Your task to perform on an android device: Search for seafood restaurants on Google Maps Image 0: 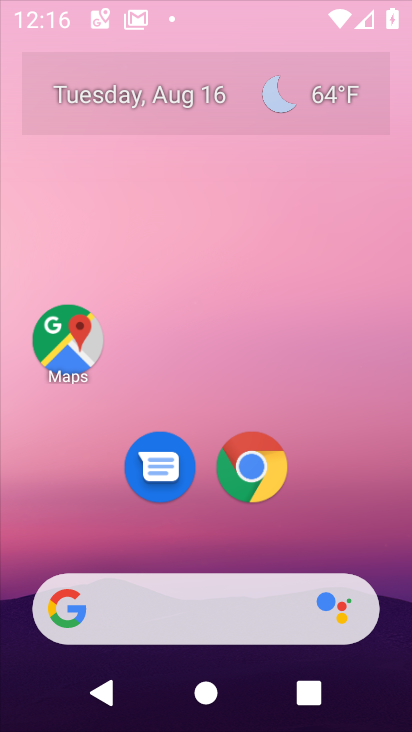
Step 0: press home button
Your task to perform on an android device: Search for seafood restaurants on Google Maps Image 1: 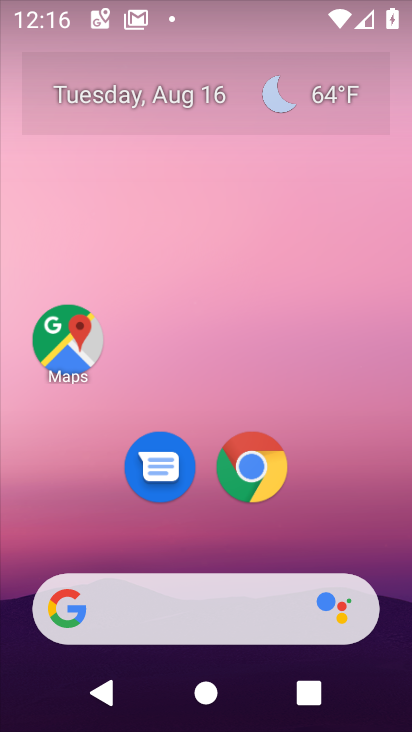
Step 1: drag from (363, 511) to (362, 195)
Your task to perform on an android device: Search for seafood restaurants on Google Maps Image 2: 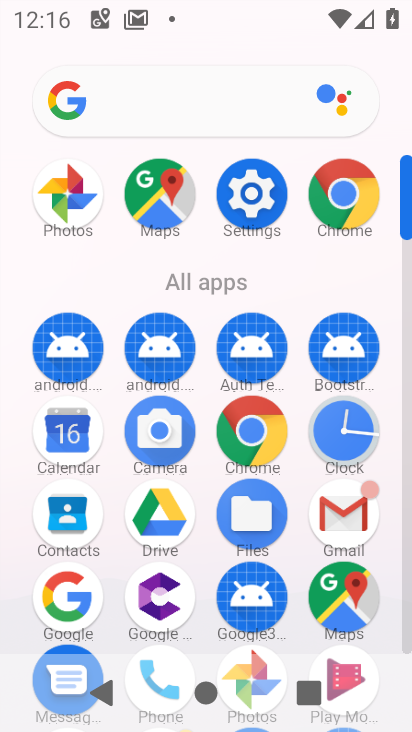
Step 2: click (347, 590)
Your task to perform on an android device: Search for seafood restaurants on Google Maps Image 3: 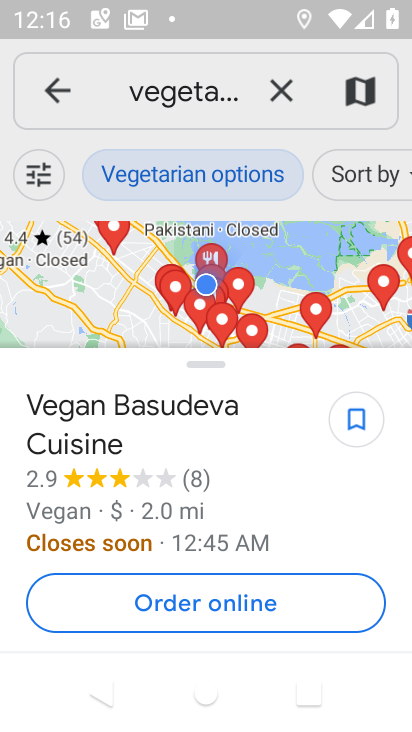
Step 3: press back button
Your task to perform on an android device: Search for seafood restaurants on Google Maps Image 4: 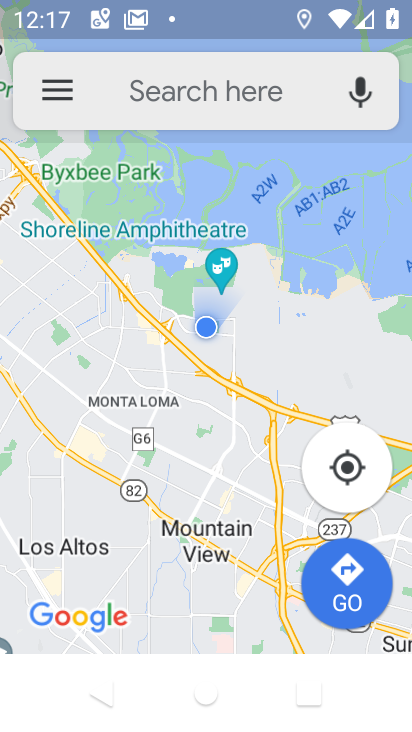
Step 4: click (202, 90)
Your task to perform on an android device: Search for seafood restaurants on Google Maps Image 5: 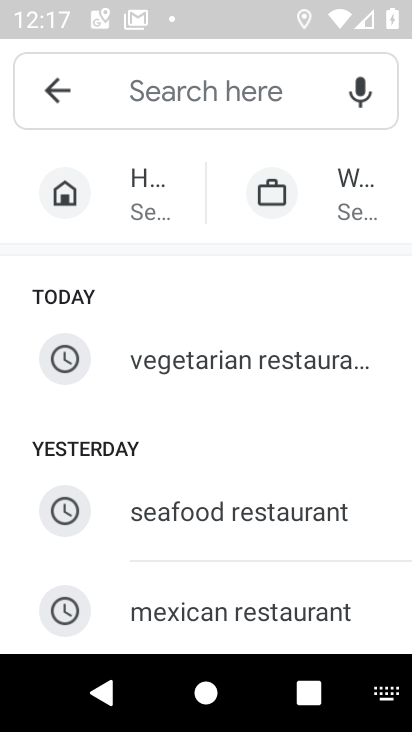
Step 5: press enter
Your task to perform on an android device: Search for seafood restaurants on Google Maps Image 6: 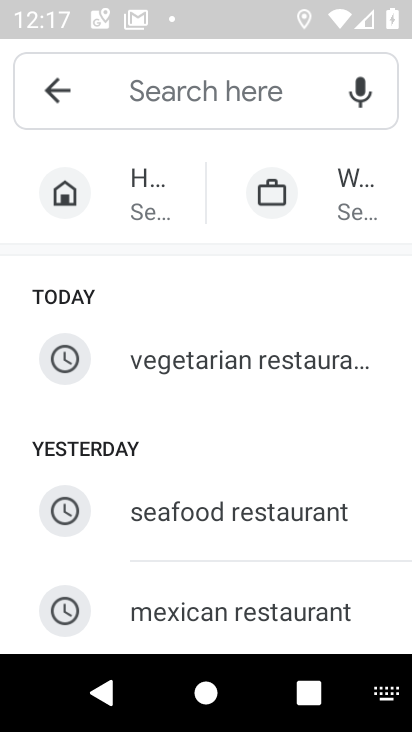
Step 6: type "seafood restaurants"
Your task to perform on an android device: Search for seafood restaurants on Google Maps Image 7: 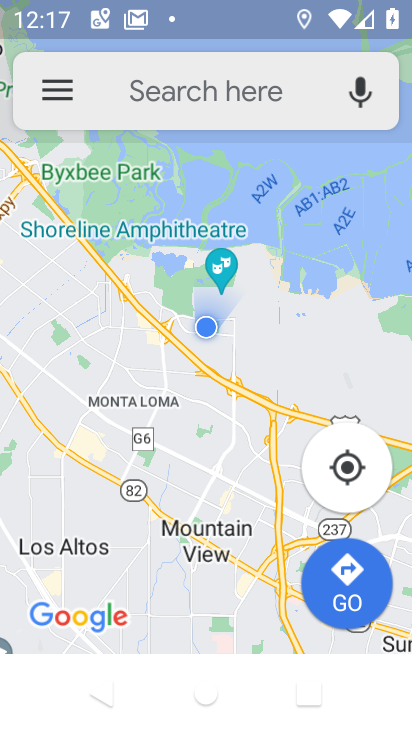
Step 7: click (99, 95)
Your task to perform on an android device: Search for seafood restaurants on Google Maps Image 8: 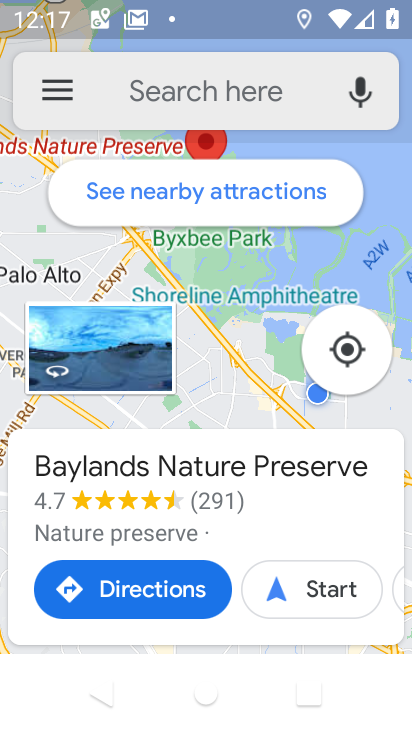
Step 8: click (139, 85)
Your task to perform on an android device: Search for seafood restaurants on Google Maps Image 9: 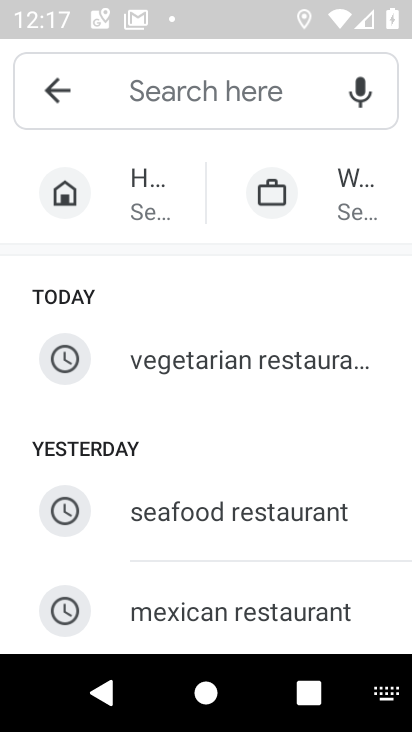
Step 9: press enter
Your task to perform on an android device: Search for seafood restaurants on Google Maps Image 10: 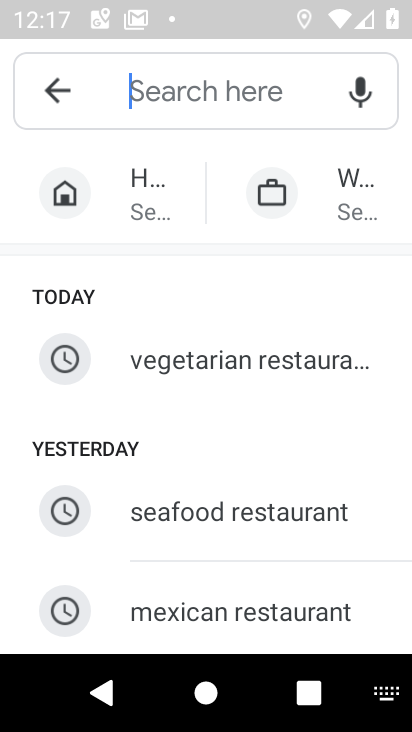
Step 10: type "seafood restaurants"
Your task to perform on an android device: Search for seafood restaurants on Google Maps Image 11: 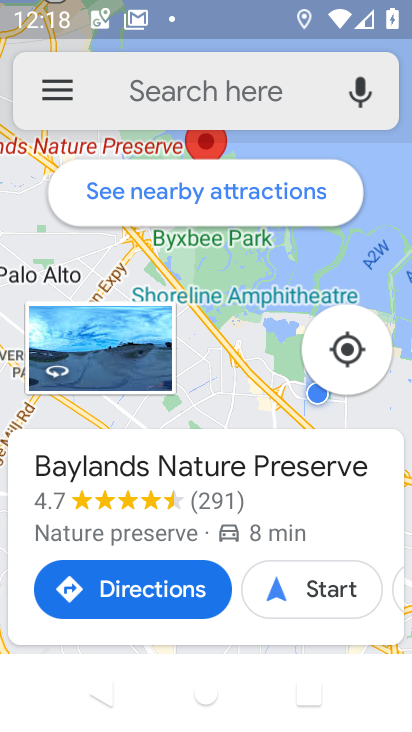
Step 11: click (178, 94)
Your task to perform on an android device: Search for seafood restaurants on Google Maps Image 12: 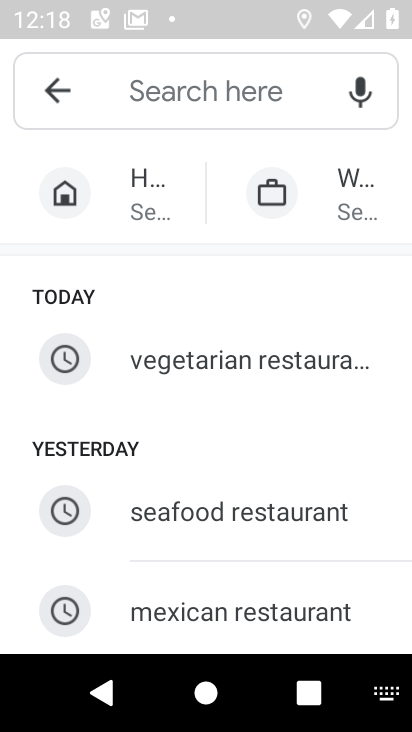
Step 12: type "seafood restaurants"
Your task to perform on an android device: Search for seafood restaurants on Google Maps Image 13: 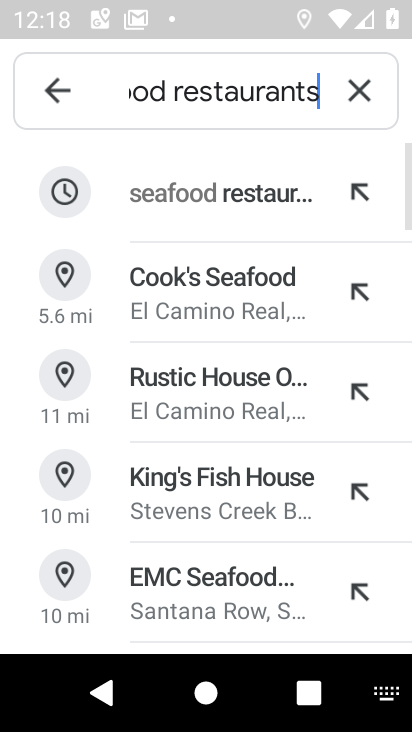
Step 13: click (212, 189)
Your task to perform on an android device: Search for seafood restaurants on Google Maps Image 14: 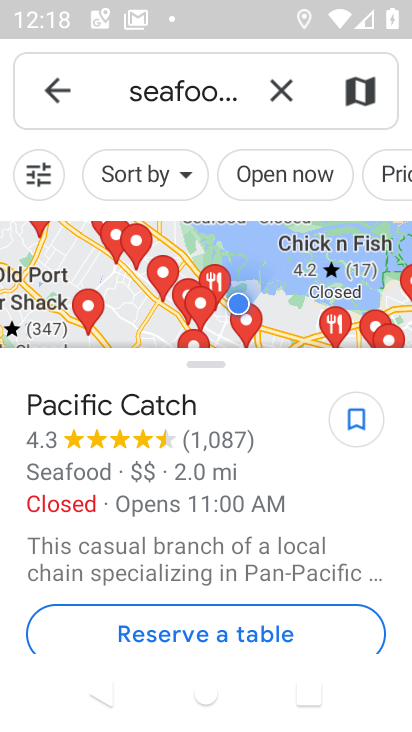
Step 14: task complete